Your task to perform on an android device: install app "PlayWell" Image 0: 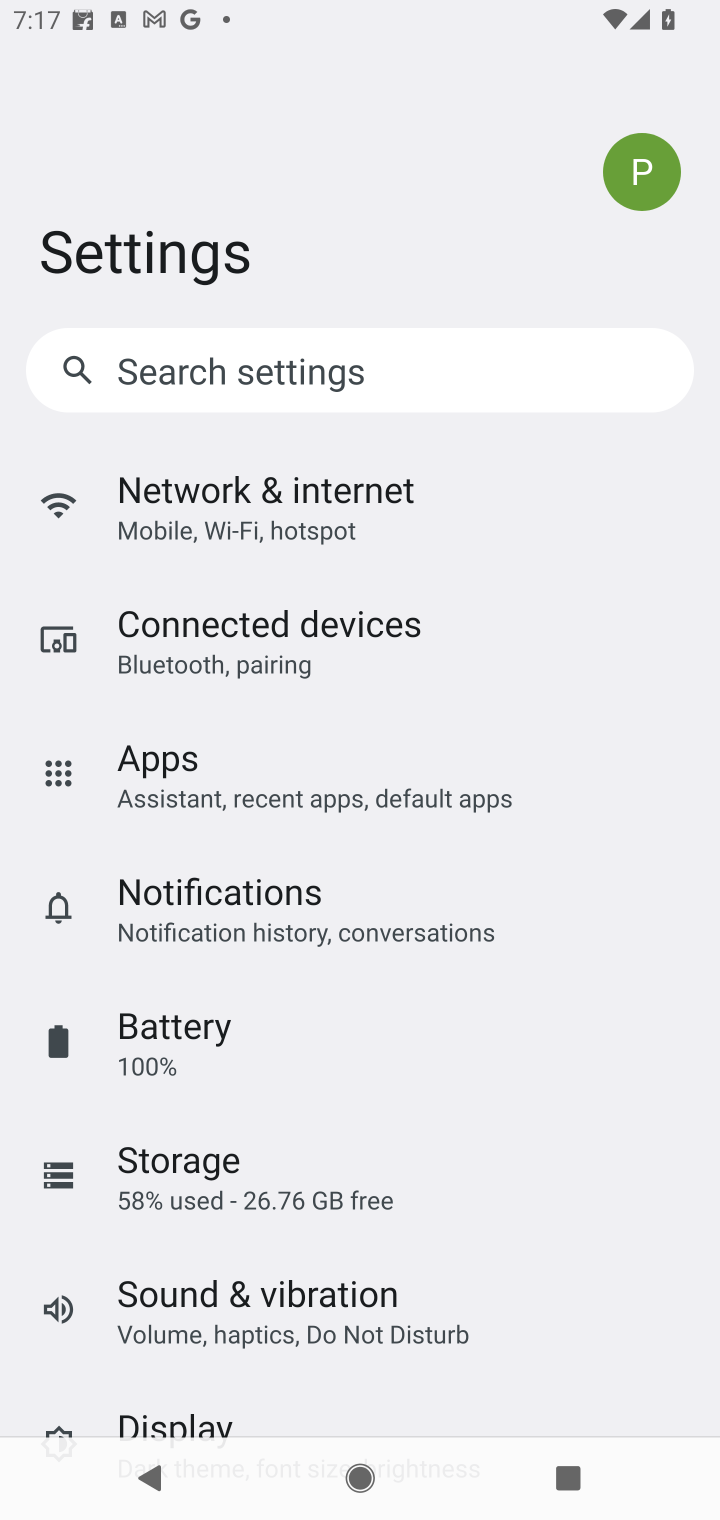
Step 0: press home button
Your task to perform on an android device: install app "PlayWell" Image 1: 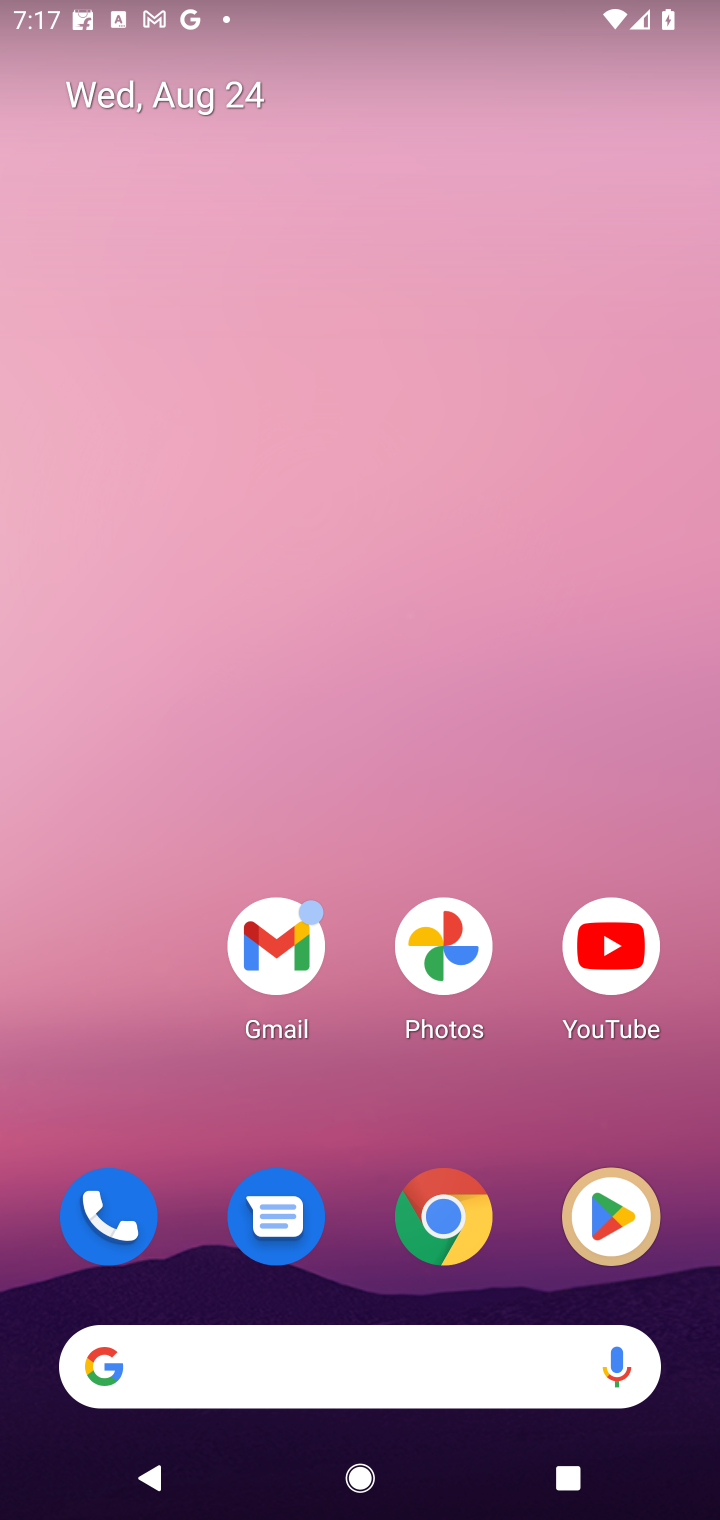
Step 1: click (569, 1204)
Your task to perform on an android device: install app "PlayWell" Image 2: 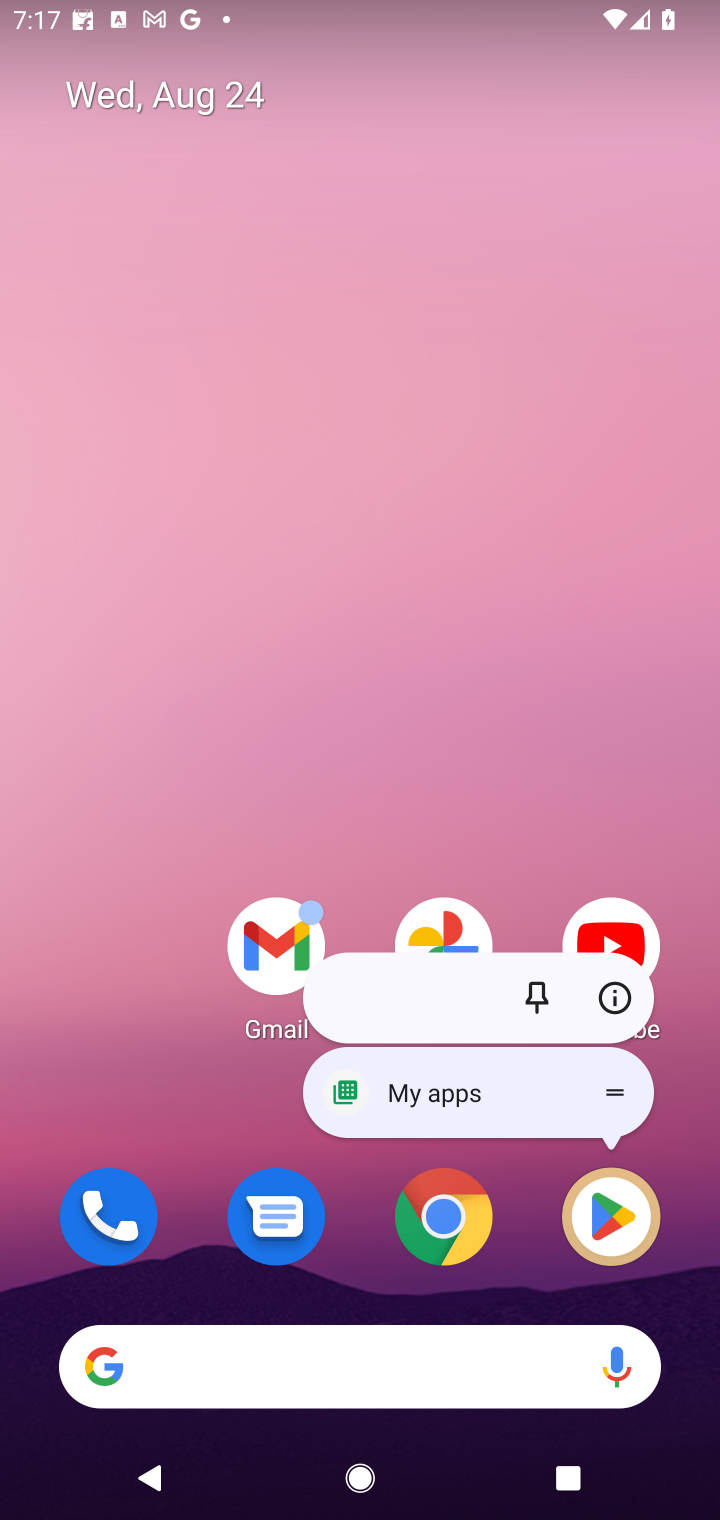
Step 2: click (614, 1214)
Your task to perform on an android device: install app "PlayWell" Image 3: 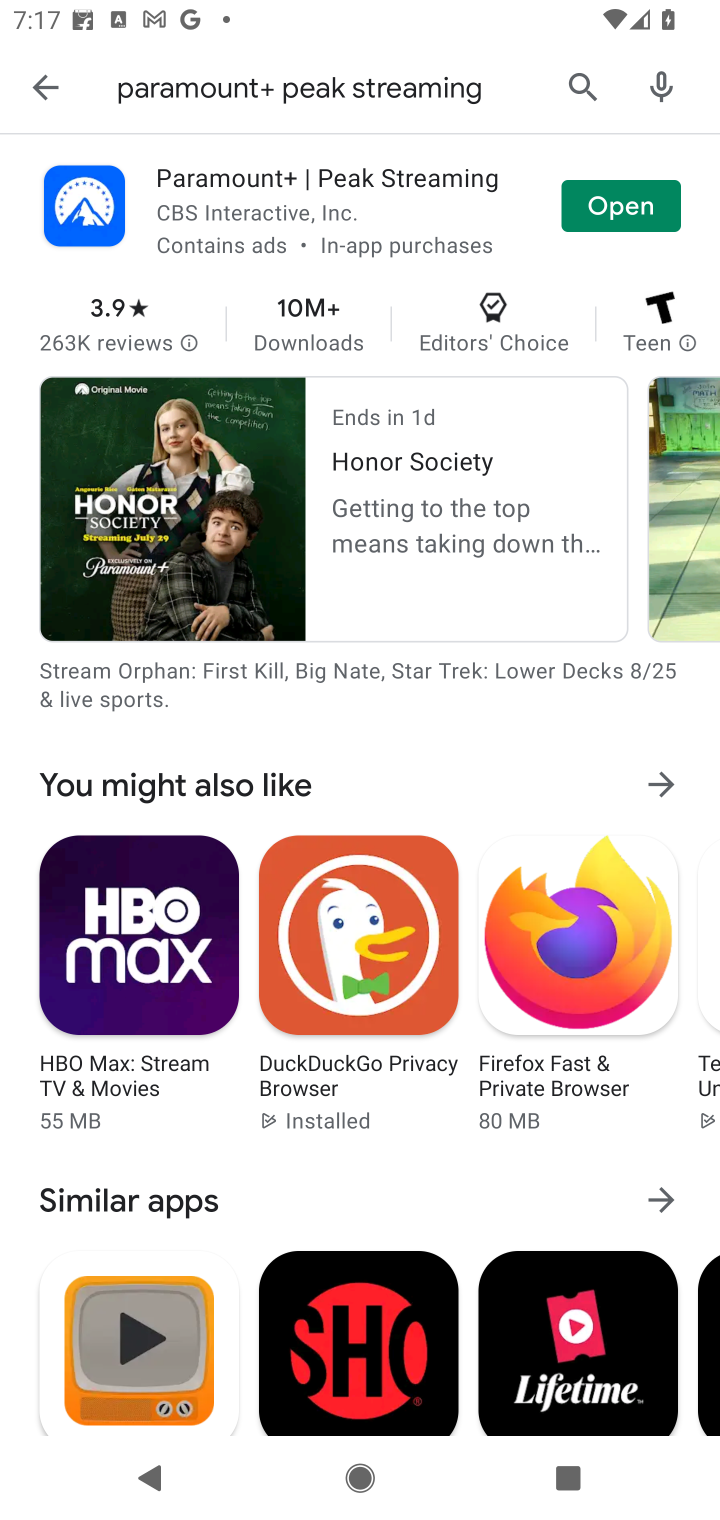
Step 3: click (572, 98)
Your task to perform on an android device: install app "PlayWell" Image 4: 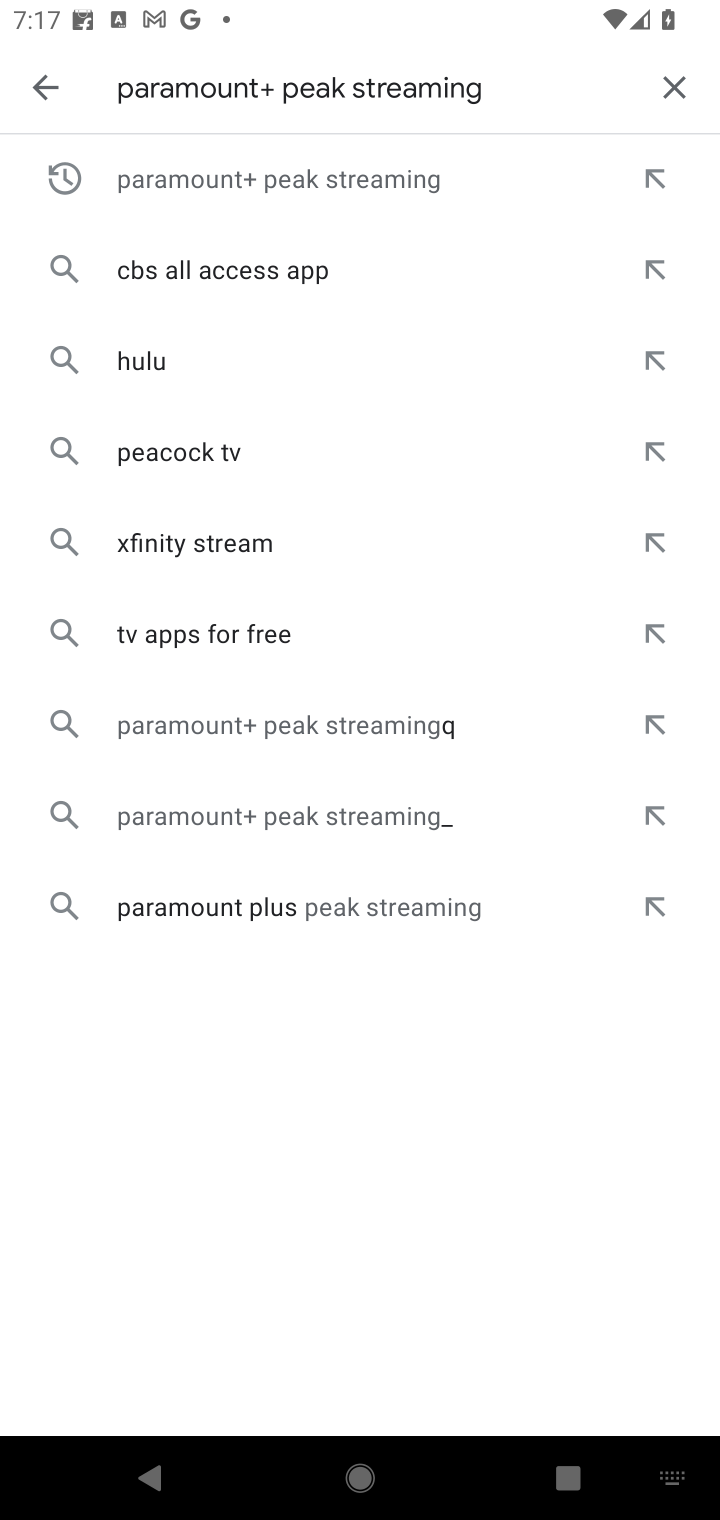
Step 4: click (662, 76)
Your task to perform on an android device: install app "PlayWell" Image 5: 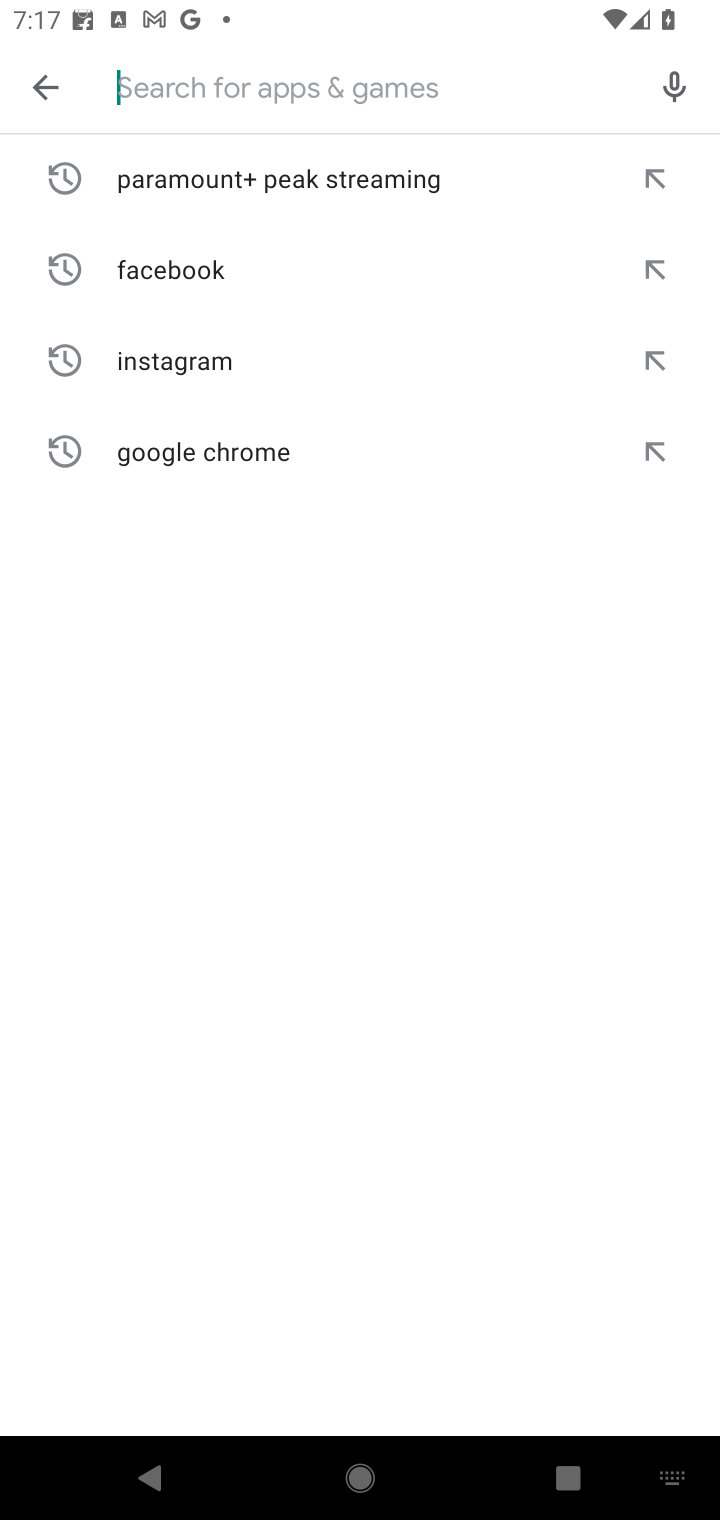
Step 5: type "PlayWell"
Your task to perform on an android device: install app "PlayWell" Image 6: 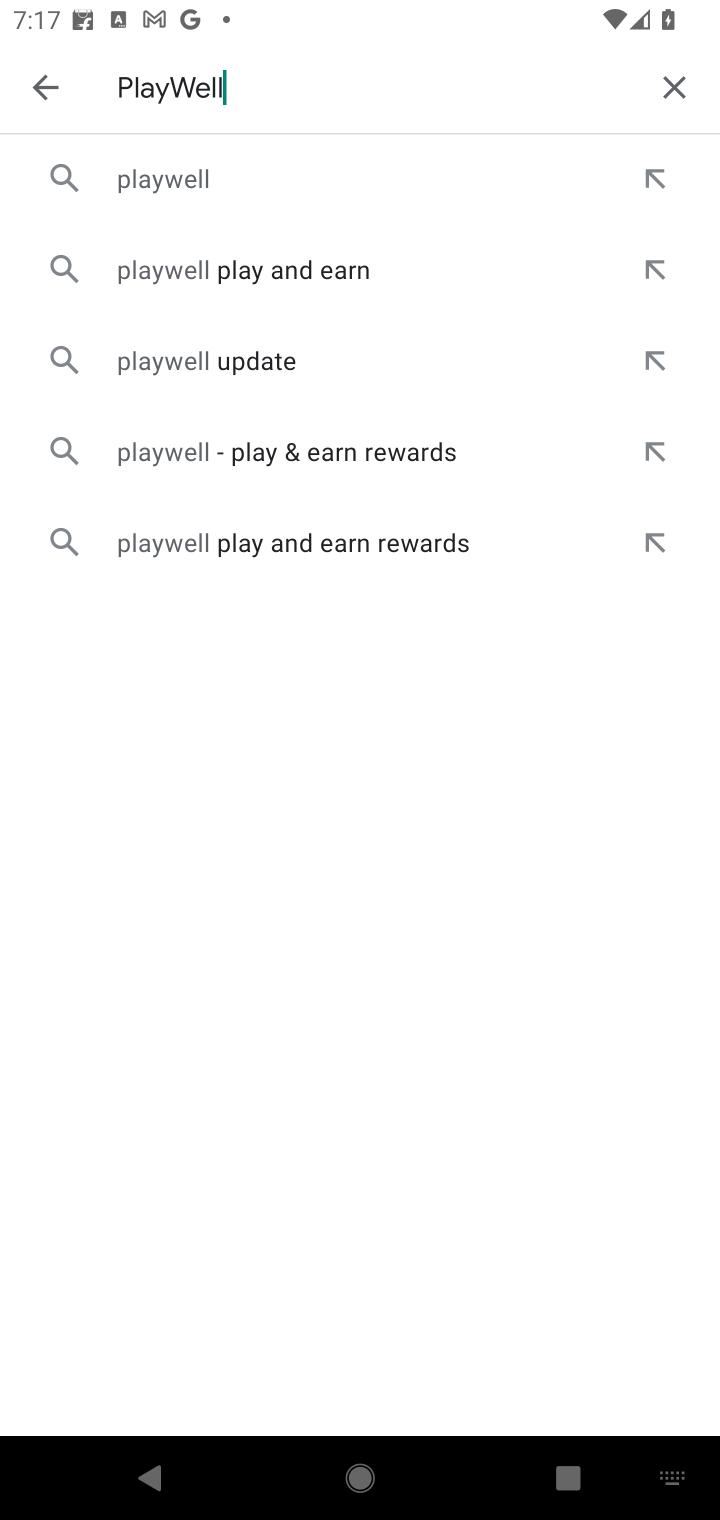
Step 6: click (207, 177)
Your task to perform on an android device: install app "PlayWell" Image 7: 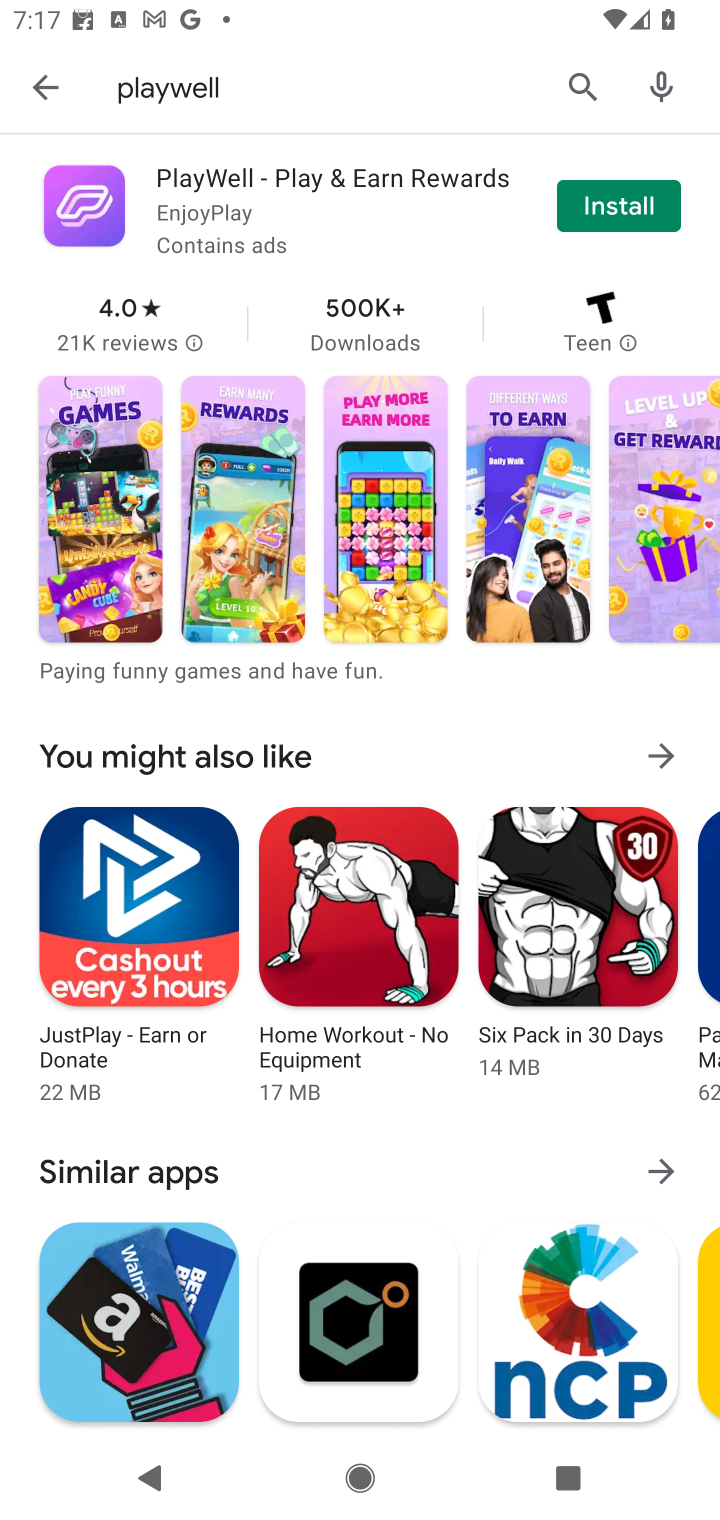
Step 7: click (612, 204)
Your task to perform on an android device: install app "PlayWell" Image 8: 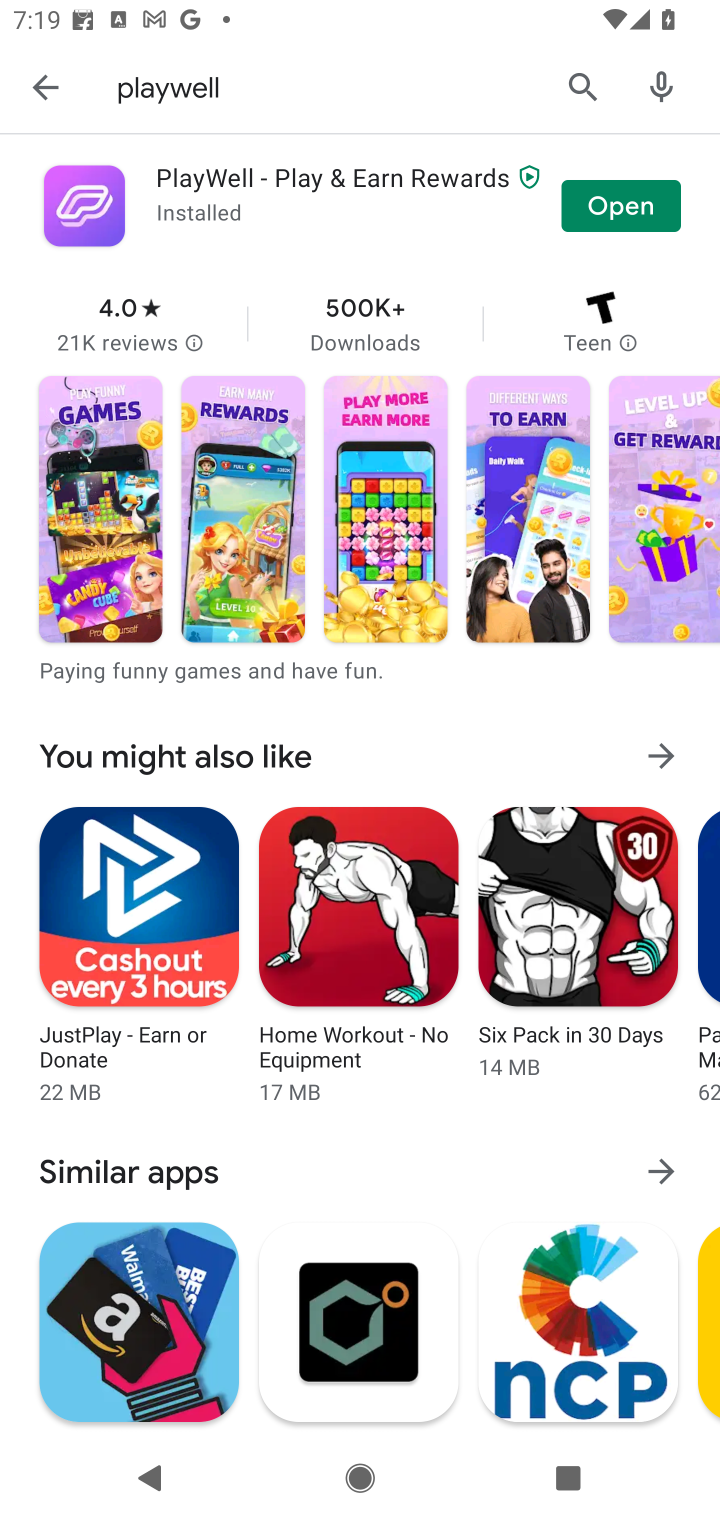
Step 8: task complete